Your task to perform on an android device: Open the phone app and click the voicemail tab. Image 0: 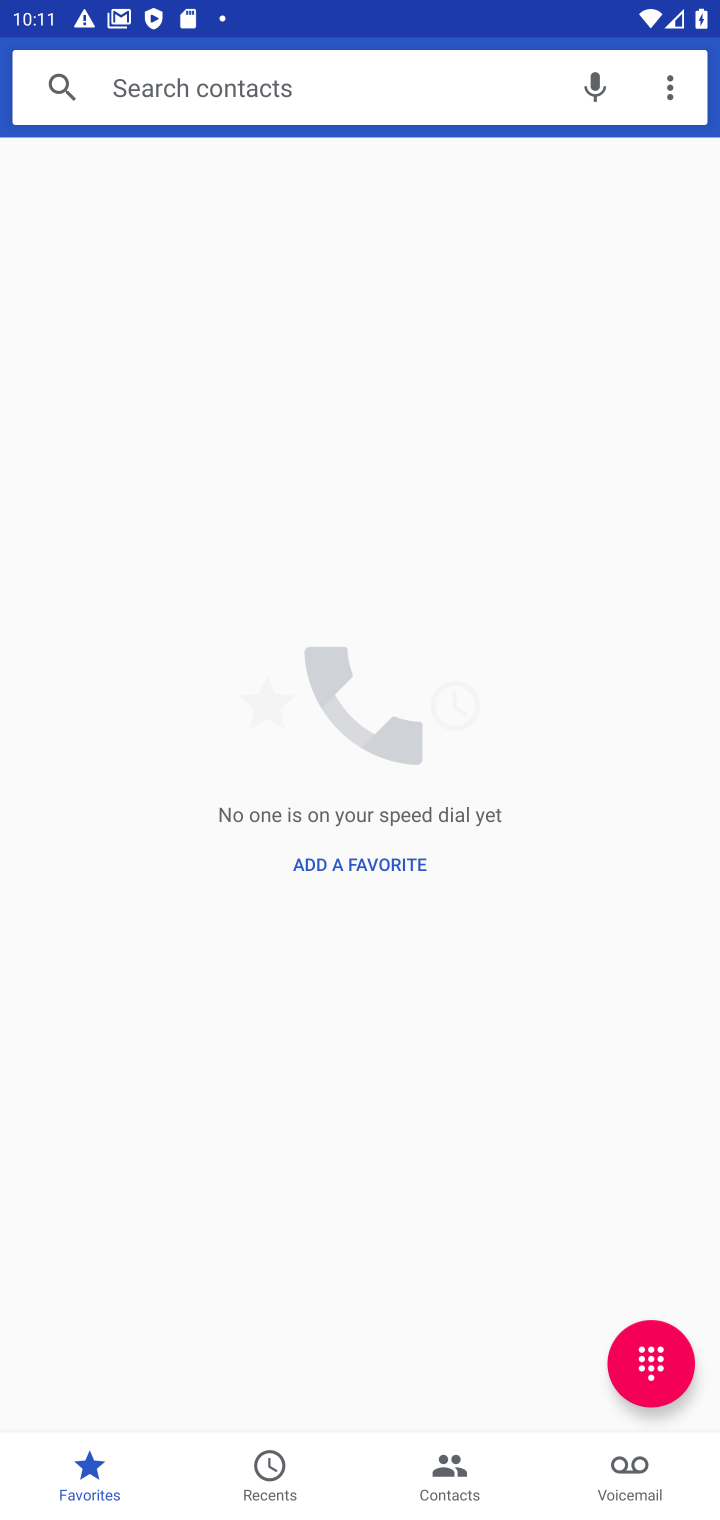
Step 0: press home button
Your task to perform on an android device: Open the phone app and click the voicemail tab. Image 1: 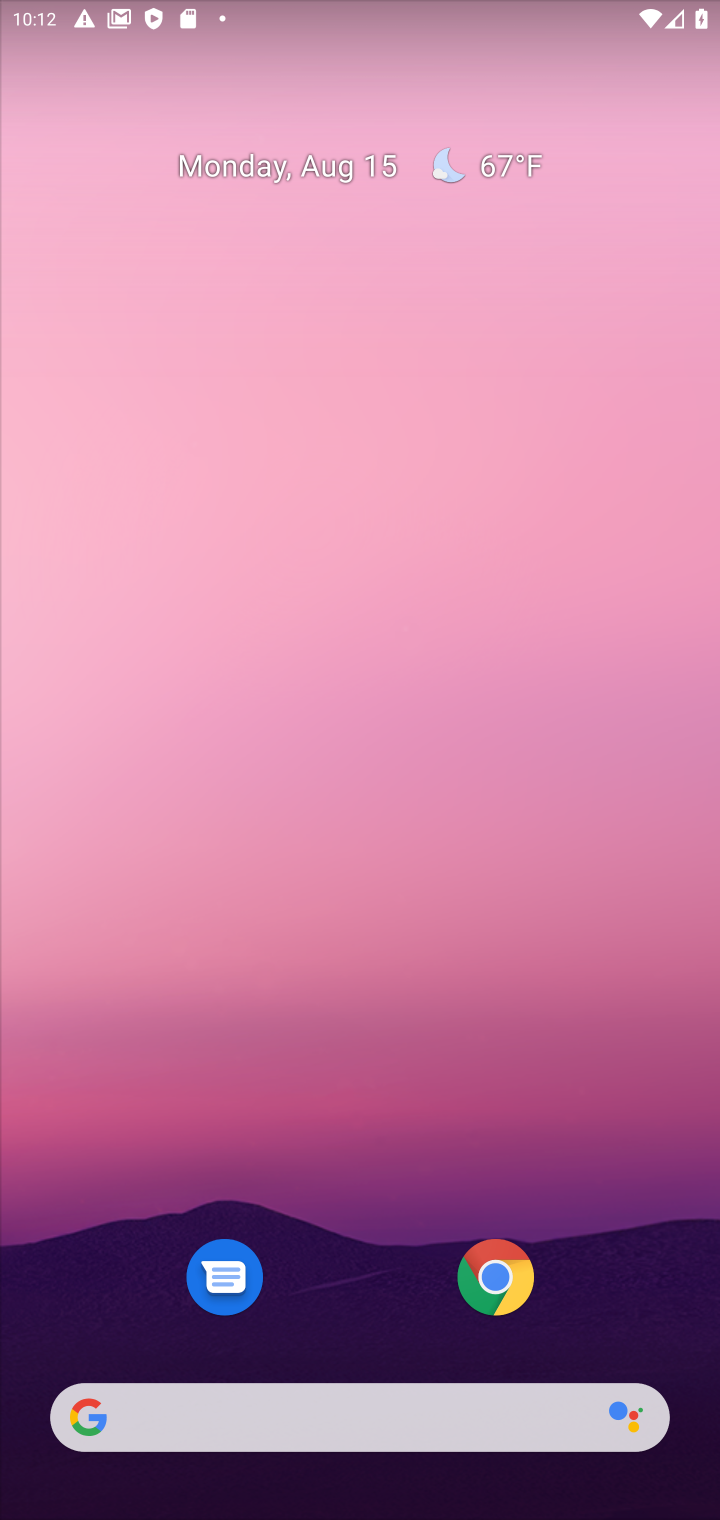
Step 1: drag from (290, 1313) to (212, 498)
Your task to perform on an android device: Open the phone app and click the voicemail tab. Image 2: 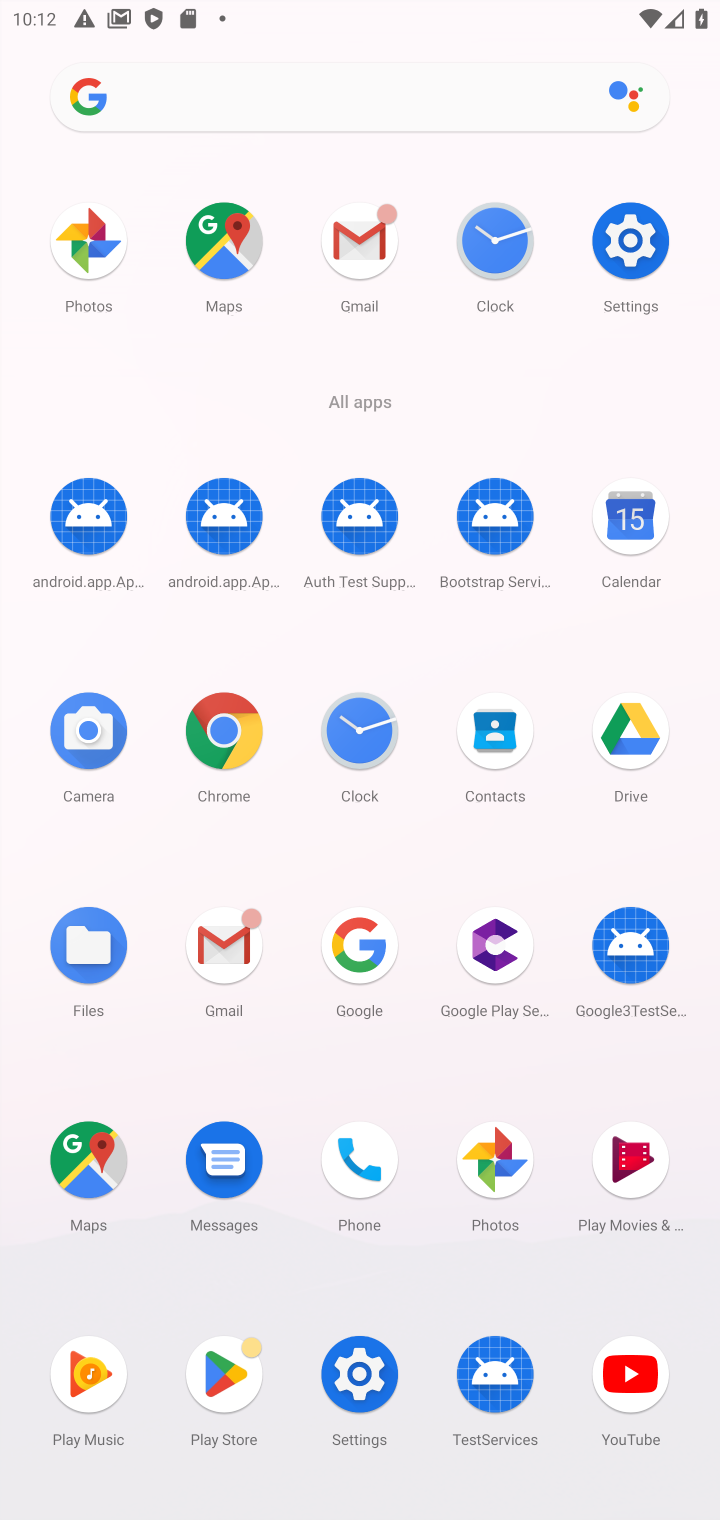
Step 2: click (364, 1141)
Your task to perform on an android device: Open the phone app and click the voicemail tab. Image 3: 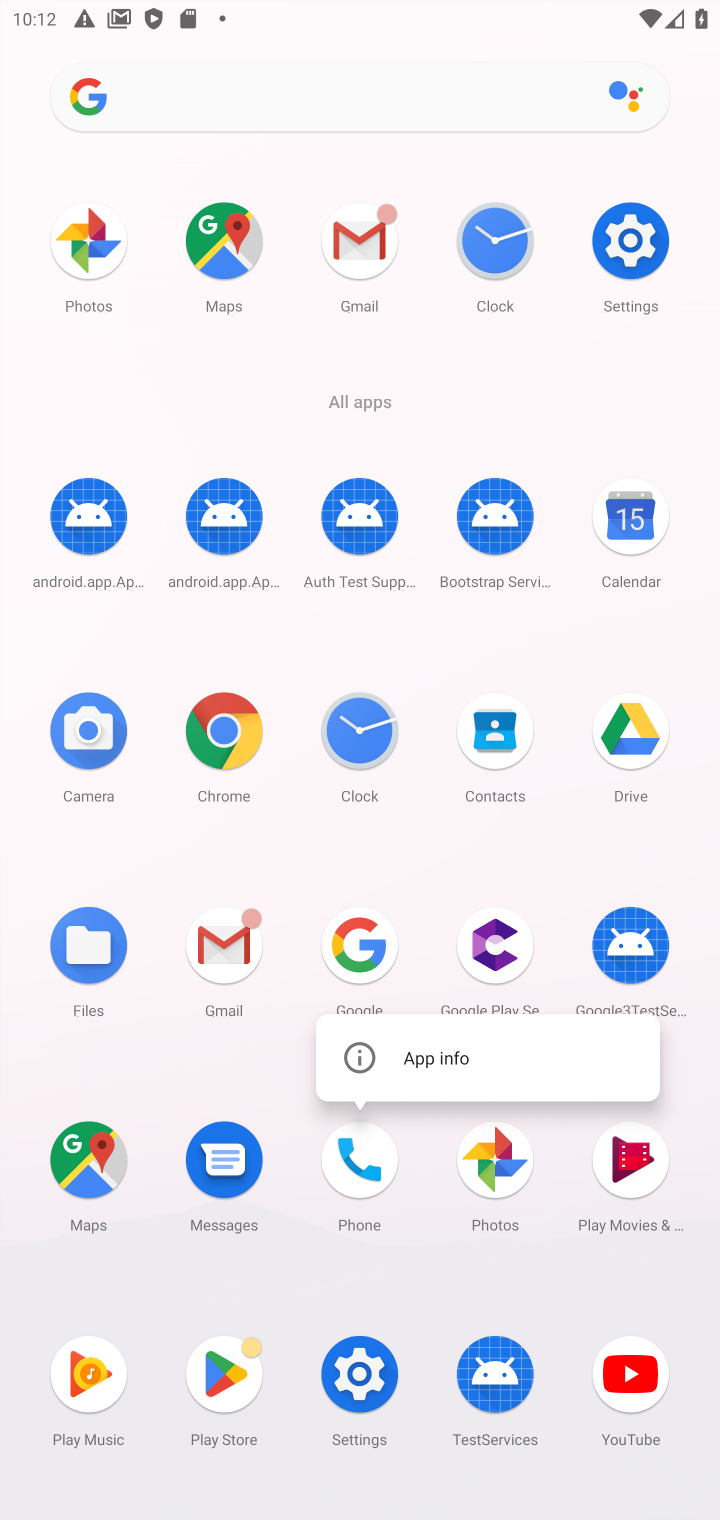
Step 3: click (364, 1141)
Your task to perform on an android device: Open the phone app and click the voicemail tab. Image 4: 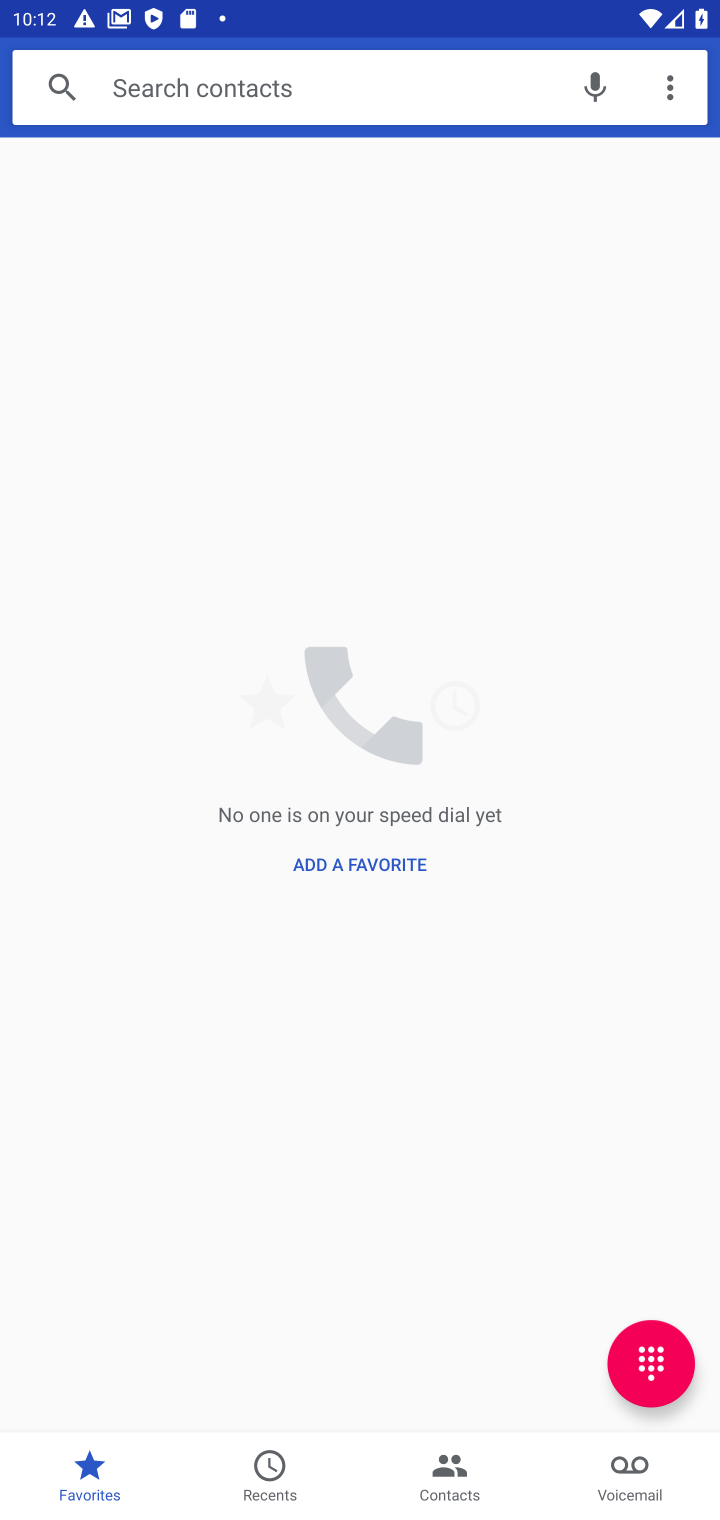
Step 4: click (653, 1483)
Your task to perform on an android device: Open the phone app and click the voicemail tab. Image 5: 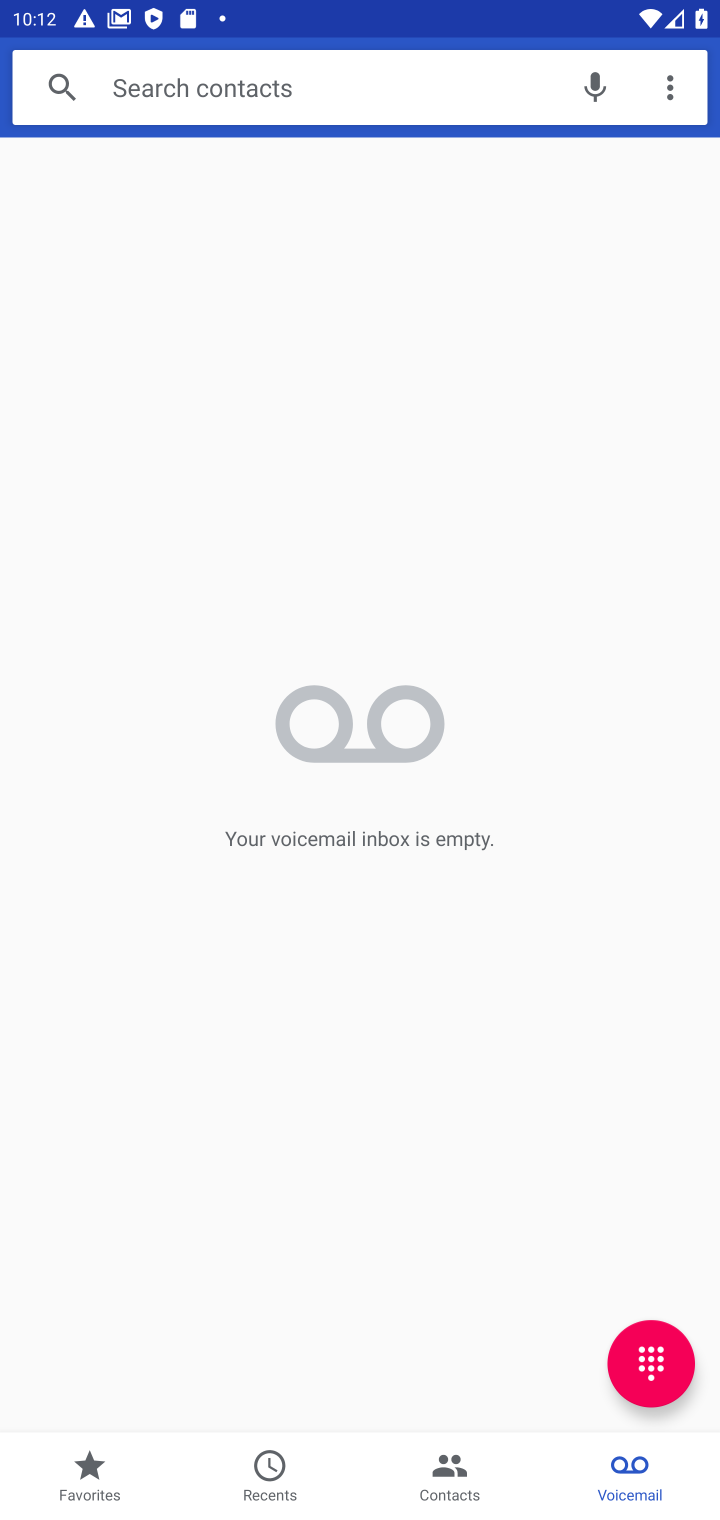
Step 5: task complete